Your task to perform on an android device: Turn off the flashlight Image 0: 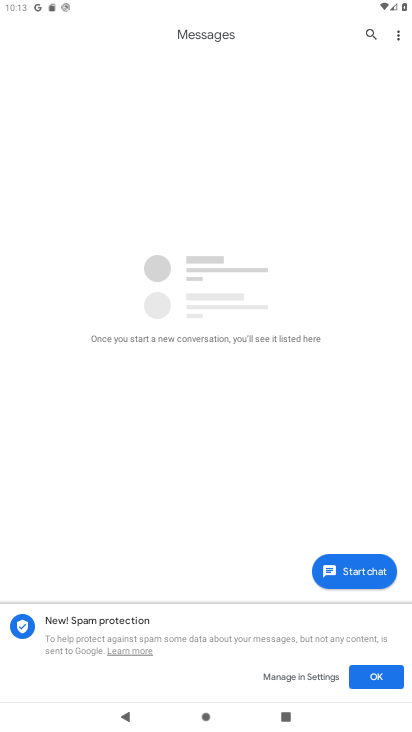
Step 0: press home button
Your task to perform on an android device: Turn off the flashlight Image 1: 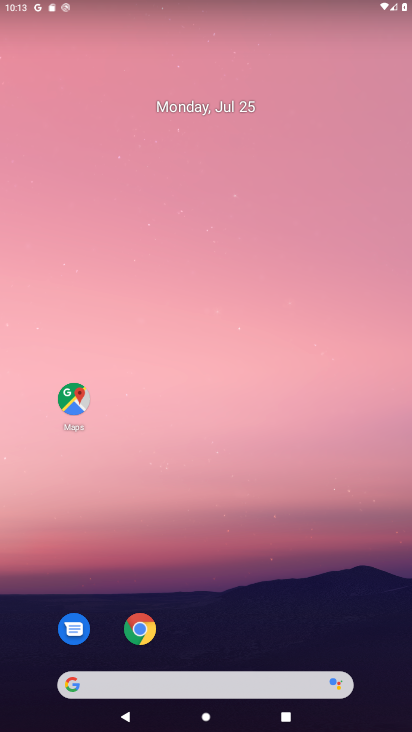
Step 1: drag from (198, 628) to (143, 127)
Your task to perform on an android device: Turn off the flashlight Image 2: 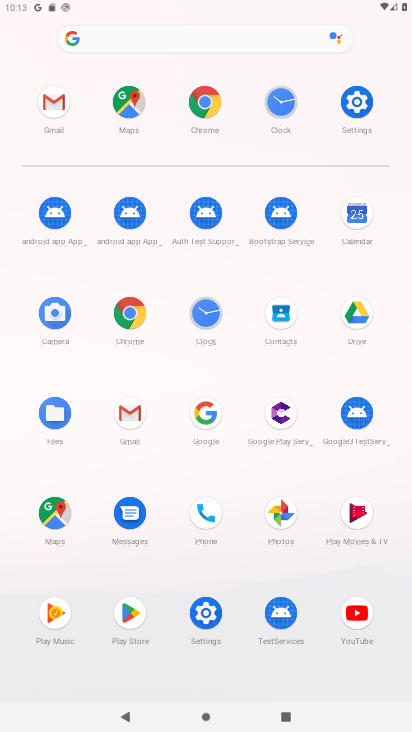
Step 2: click (359, 117)
Your task to perform on an android device: Turn off the flashlight Image 3: 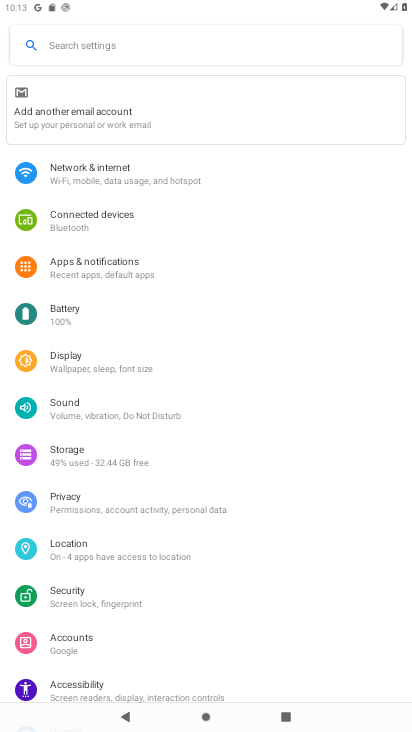
Step 3: task complete